Your task to perform on an android device: Open network settings Image 0: 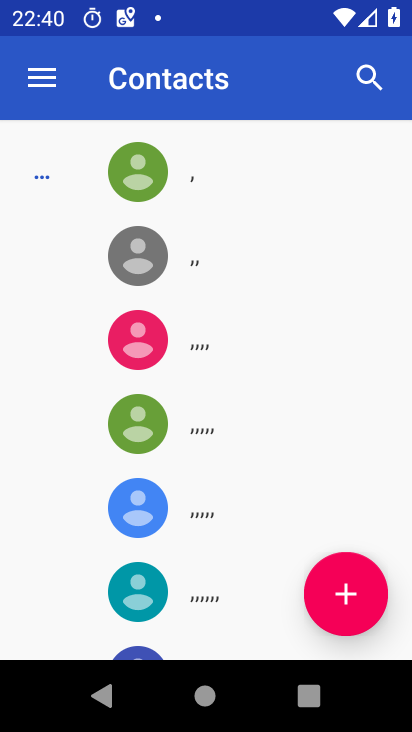
Step 0: press home button
Your task to perform on an android device: Open network settings Image 1: 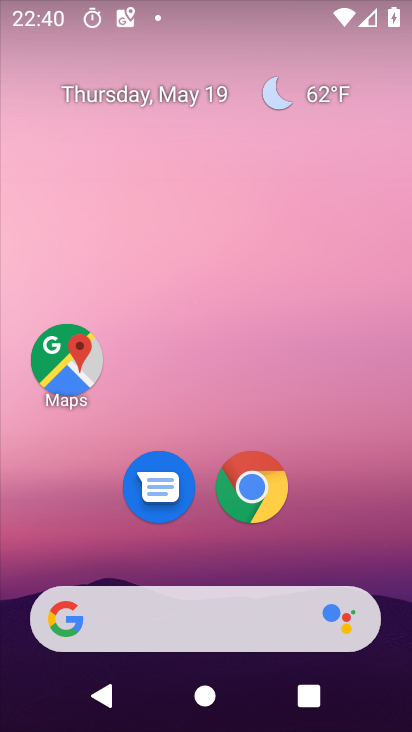
Step 1: drag from (318, 539) to (254, 116)
Your task to perform on an android device: Open network settings Image 2: 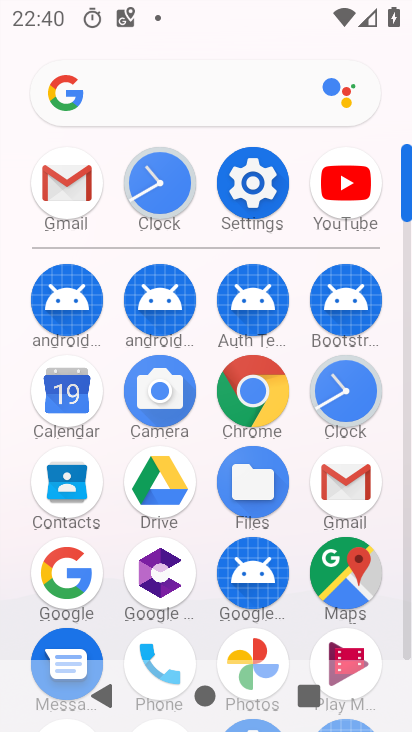
Step 2: click (255, 186)
Your task to perform on an android device: Open network settings Image 3: 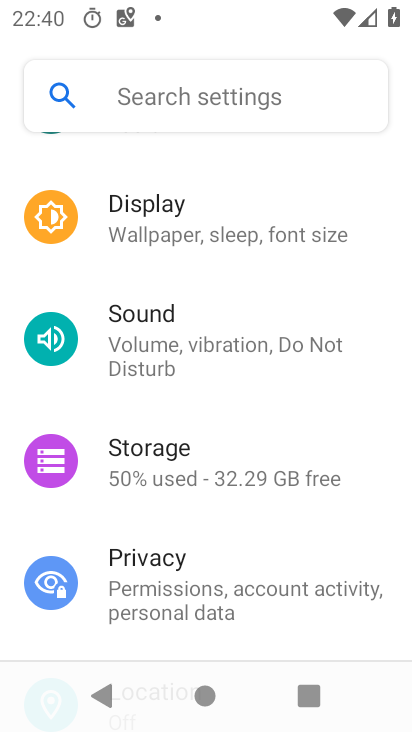
Step 3: drag from (287, 189) to (333, 536)
Your task to perform on an android device: Open network settings Image 4: 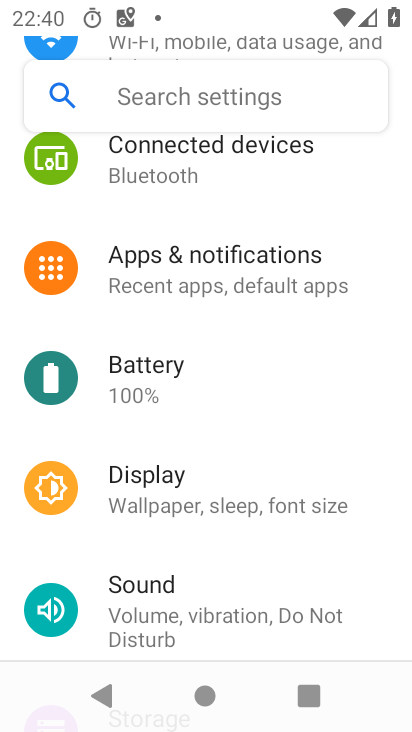
Step 4: drag from (306, 218) to (358, 542)
Your task to perform on an android device: Open network settings Image 5: 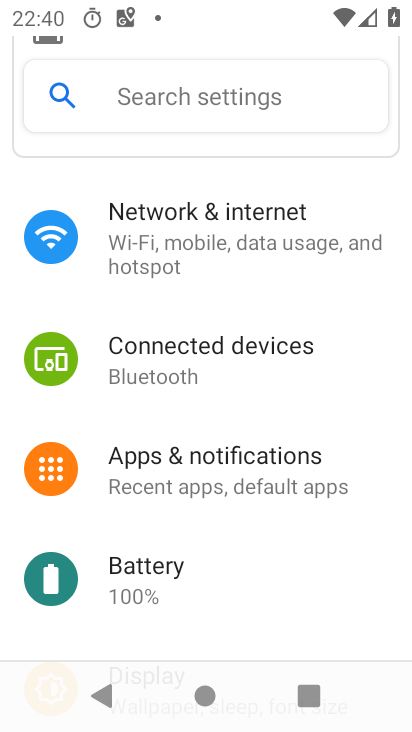
Step 5: click (241, 222)
Your task to perform on an android device: Open network settings Image 6: 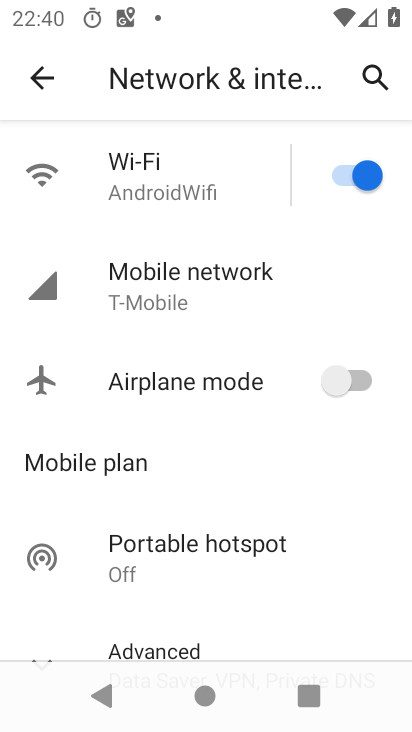
Step 6: task complete